Your task to perform on an android device: set default search engine in the chrome app Image 0: 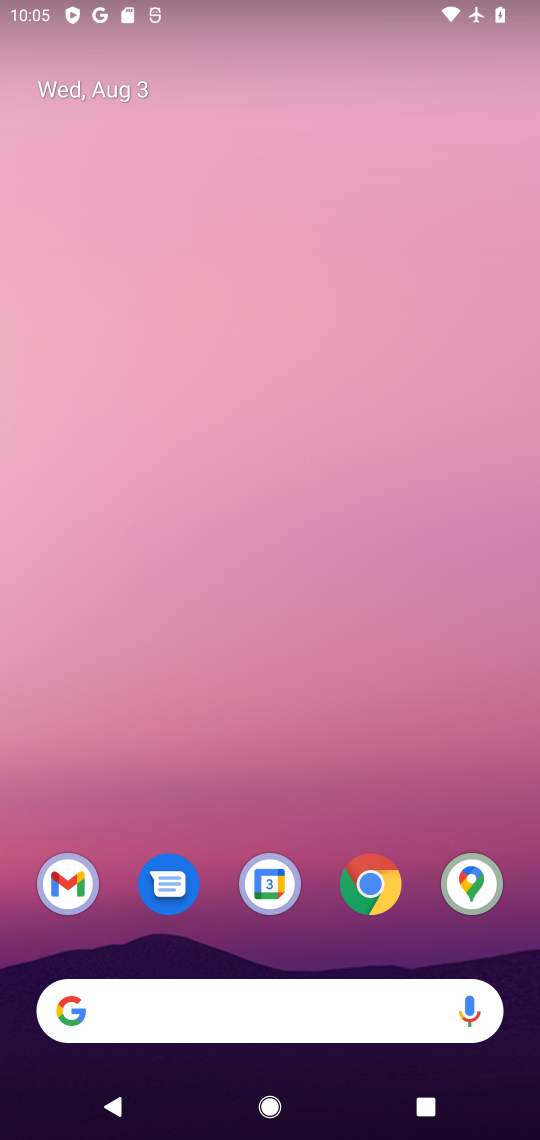
Step 0: click (359, 866)
Your task to perform on an android device: set default search engine in the chrome app Image 1: 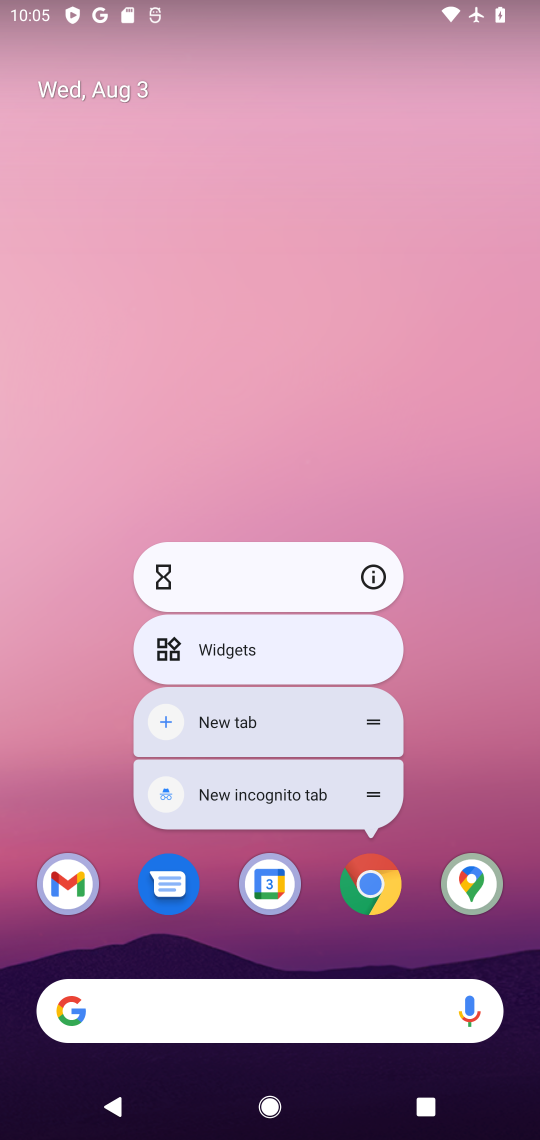
Step 1: click (351, 906)
Your task to perform on an android device: set default search engine in the chrome app Image 2: 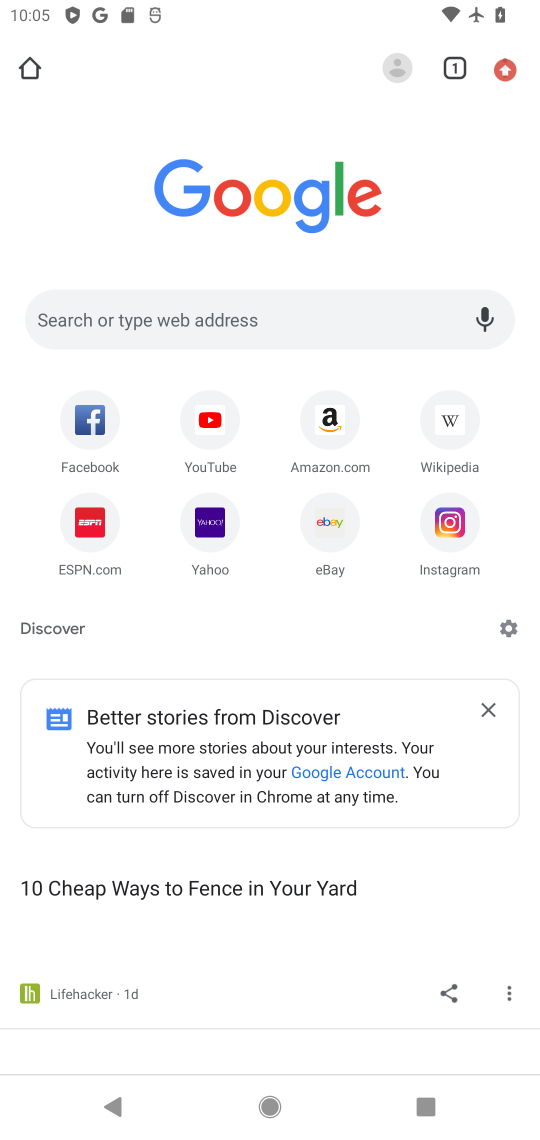
Step 2: click (341, 901)
Your task to perform on an android device: set default search engine in the chrome app Image 3: 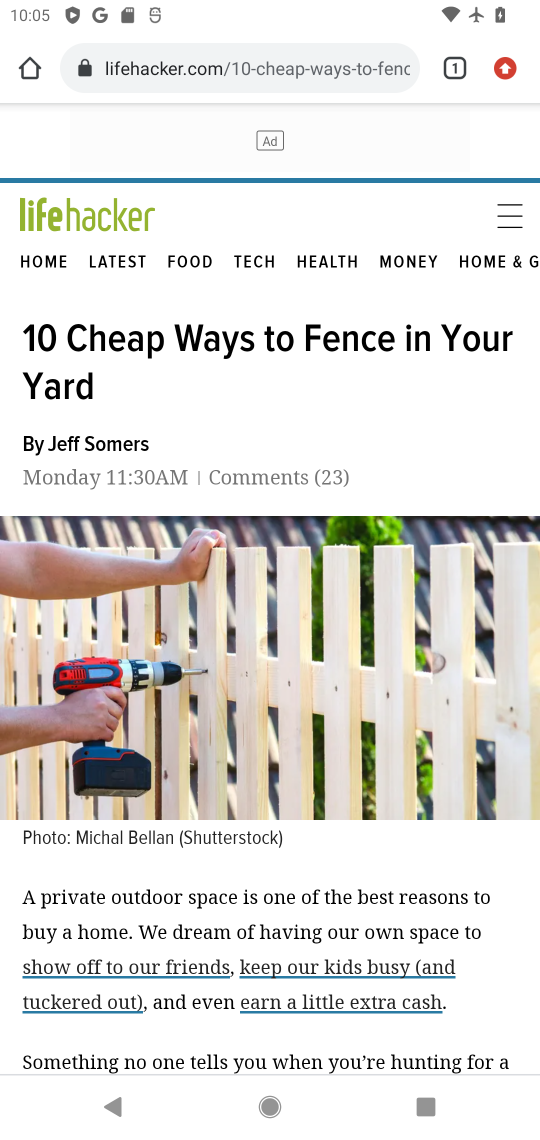
Step 3: drag from (513, 71) to (386, 890)
Your task to perform on an android device: set default search engine in the chrome app Image 4: 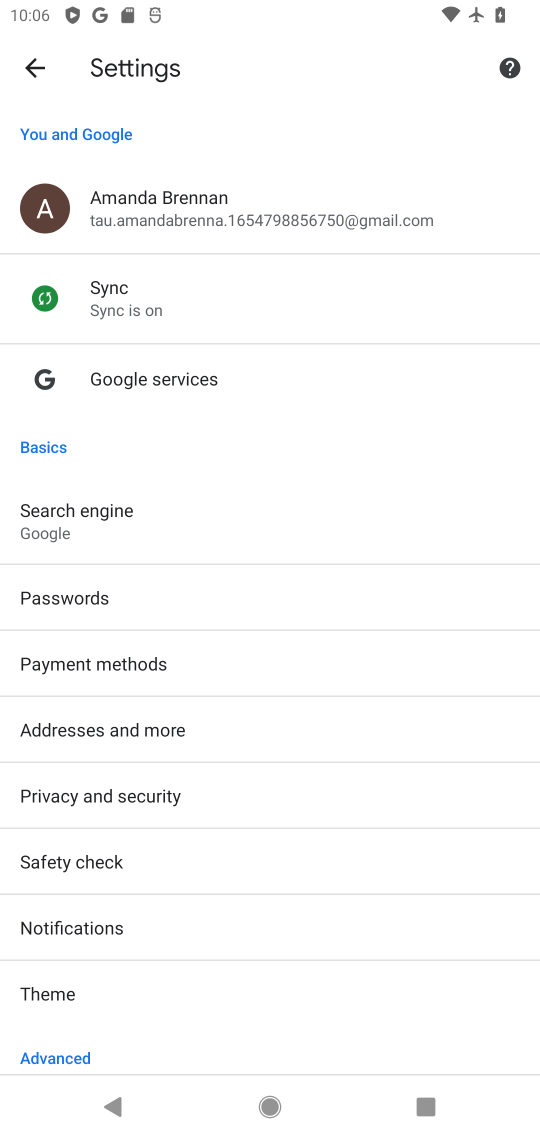
Step 4: click (42, 534)
Your task to perform on an android device: set default search engine in the chrome app Image 5: 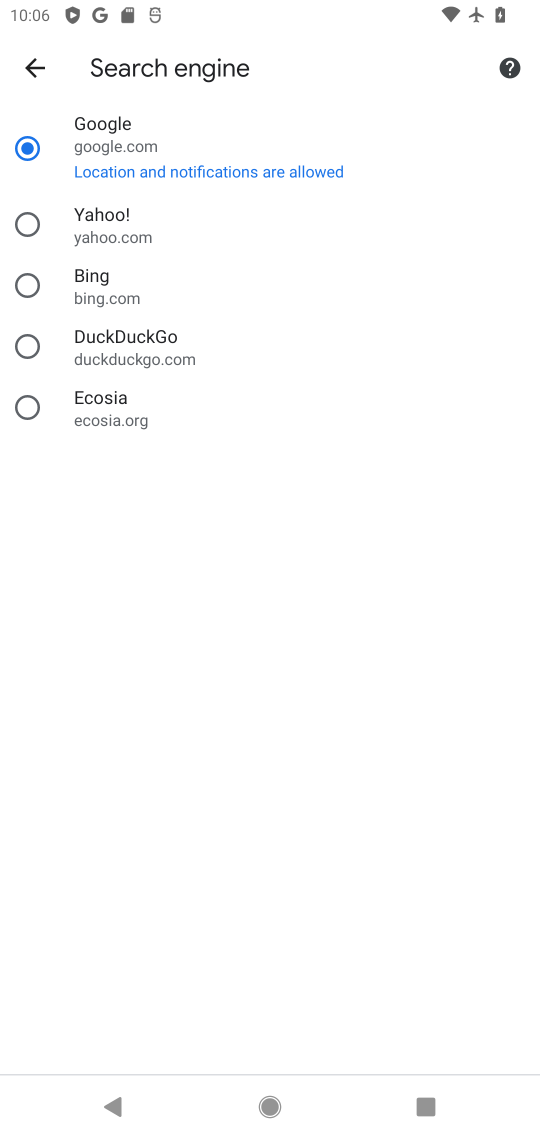
Step 5: click (20, 216)
Your task to perform on an android device: set default search engine in the chrome app Image 6: 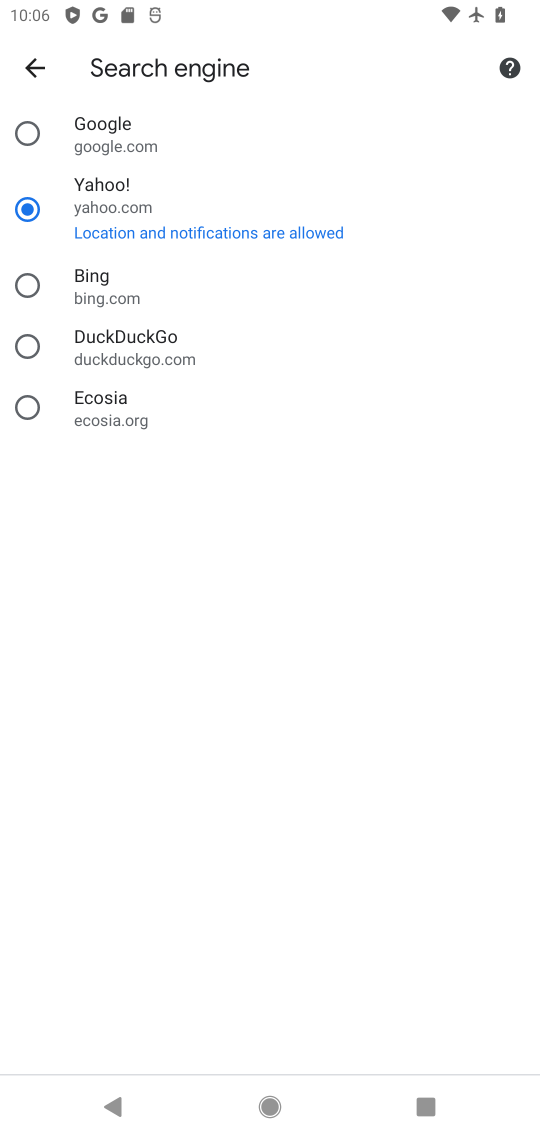
Step 6: task complete